Your task to perform on an android device: turn notification dots off Image 0: 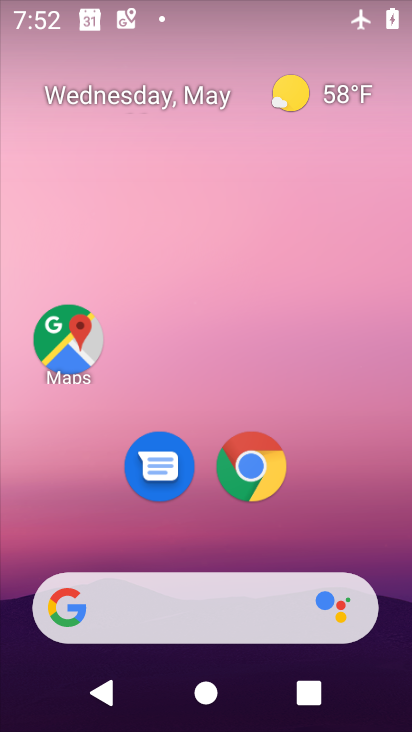
Step 0: drag from (205, 531) to (277, 63)
Your task to perform on an android device: turn notification dots off Image 1: 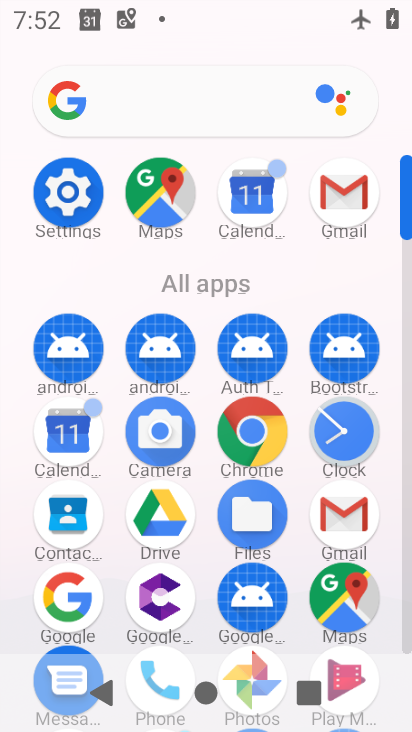
Step 1: click (67, 186)
Your task to perform on an android device: turn notification dots off Image 2: 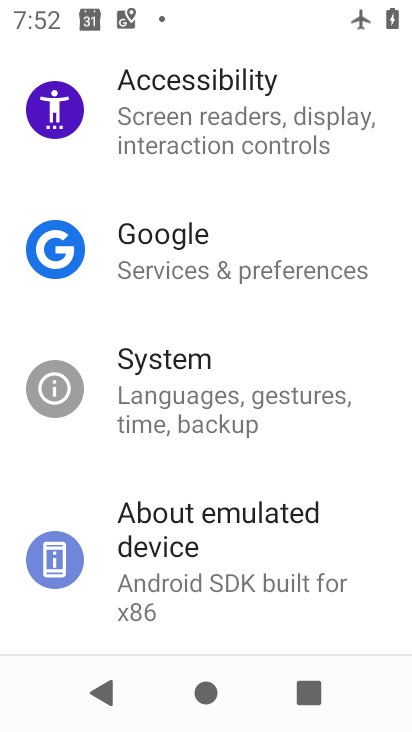
Step 2: drag from (181, 123) to (202, 639)
Your task to perform on an android device: turn notification dots off Image 3: 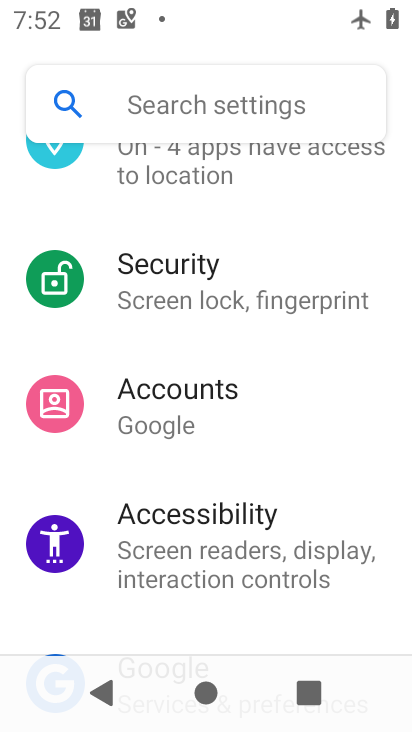
Step 3: drag from (191, 498) to (221, 725)
Your task to perform on an android device: turn notification dots off Image 4: 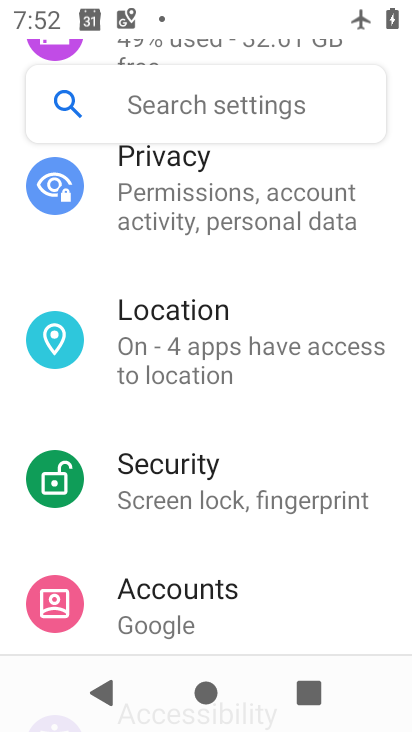
Step 4: drag from (104, 165) to (100, 669)
Your task to perform on an android device: turn notification dots off Image 5: 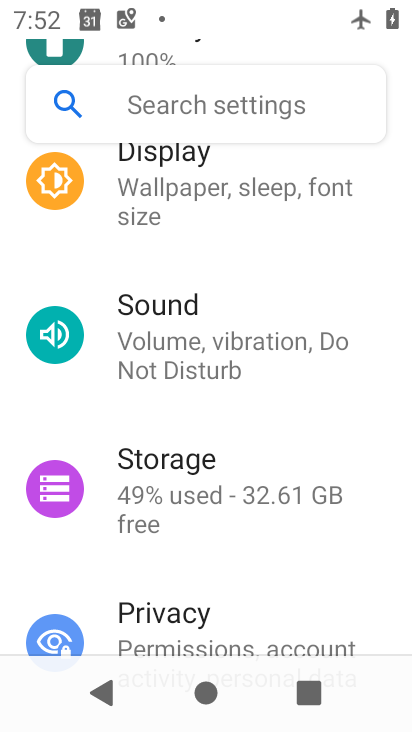
Step 5: drag from (108, 170) to (92, 654)
Your task to perform on an android device: turn notification dots off Image 6: 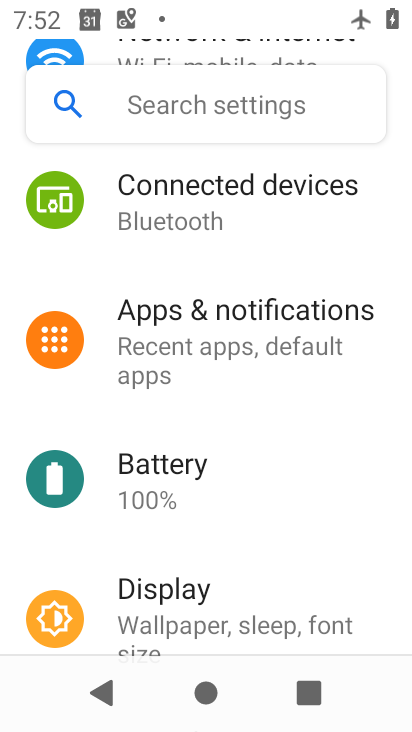
Step 6: click (100, 317)
Your task to perform on an android device: turn notification dots off Image 7: 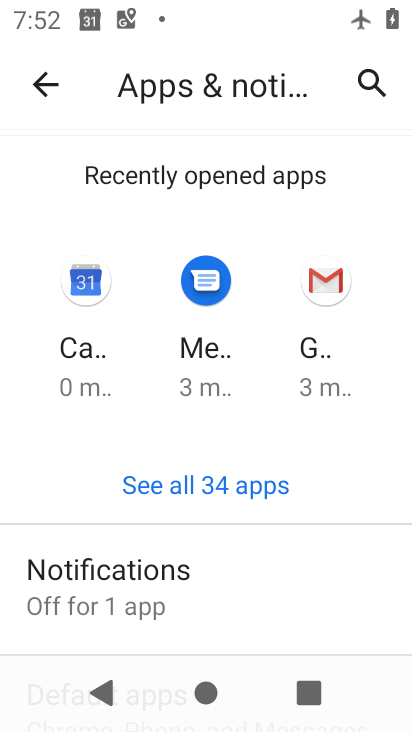
Step 7: click (196, 584)
Your task to perform on an android device: turn notification dots off Image 8: 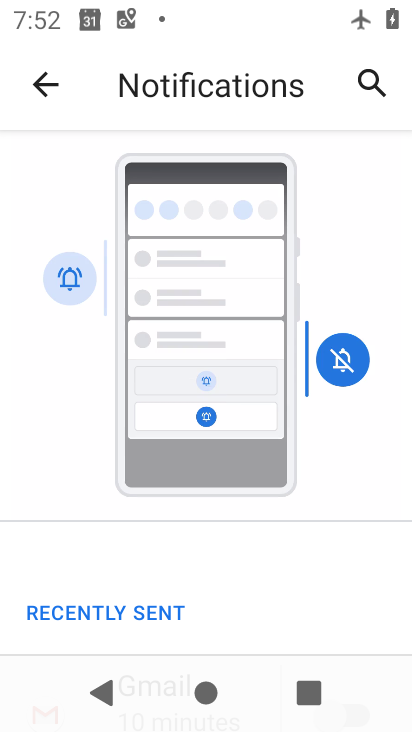
Step 8: drag from (236, 600) to (263, 260)
Your task to perform on an android device: turn notification dots off Image 9: 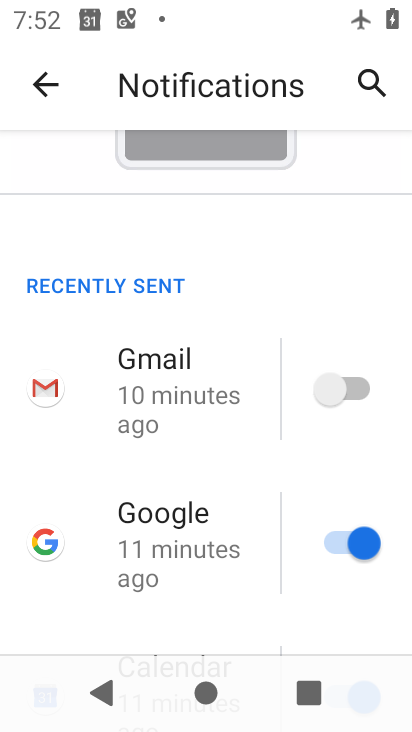
Step 9: drag from (201, 589) to (242, 177)
Your task to perform on an android device: turn notification dots off Image 10: 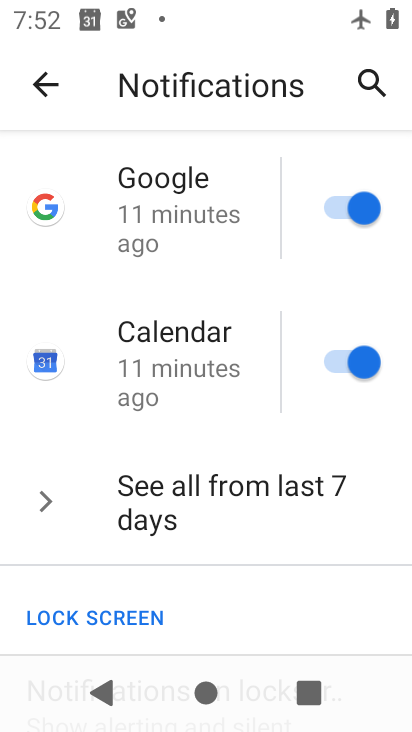
Step 10: drag from (203, 597) to (238, 168)
Your task to perform on an android device: turn notification dots off Image 11: 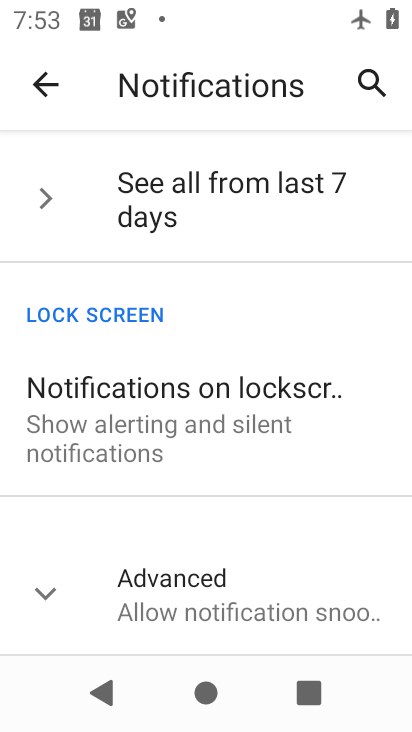
Step 11: click (72, 590)
Your task to perform on an android device: turn notification dots off Image 12: 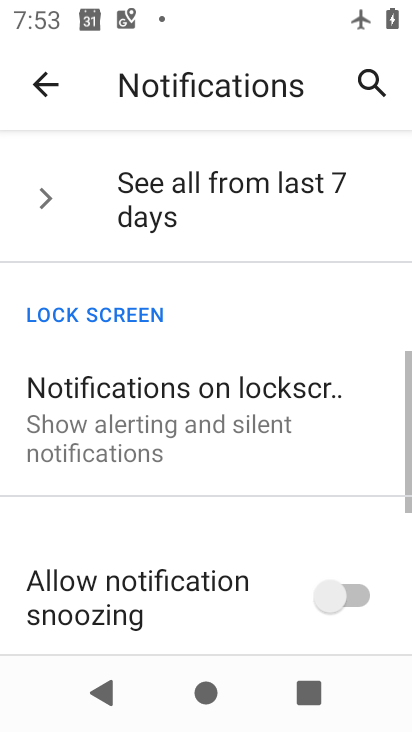
Step 12: drag from (154, 587) to (205, 131)
Your task to perform on an android device: turn notification dots off Image 13: 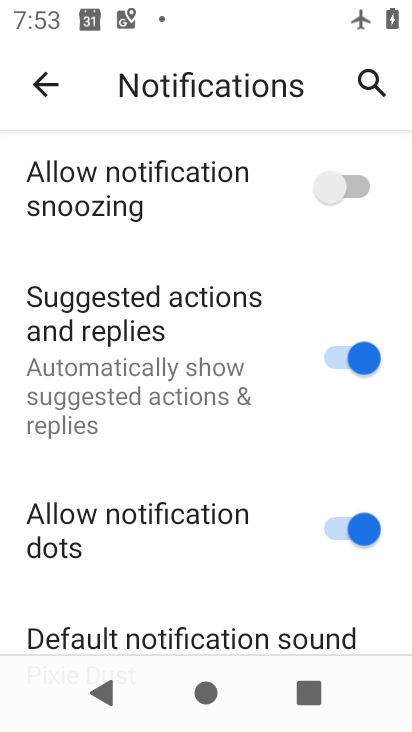
Step 13: click (336, 522)
Your task to perform on an android device: turn notification dots off Image 14: 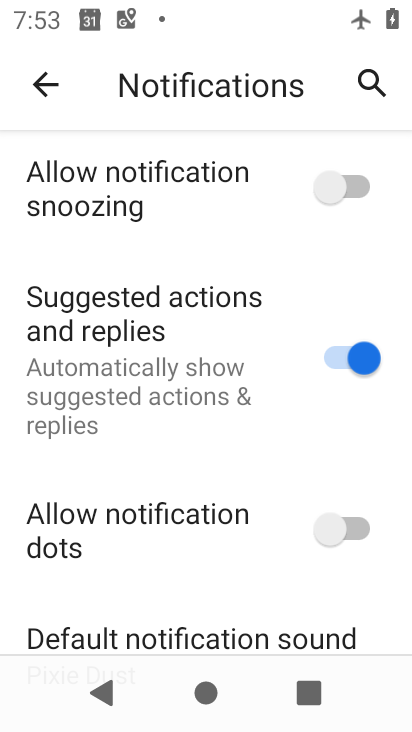
Step 14: task complete